Your task to perform on an android device: turn on data saver in the chrome app Image 0: 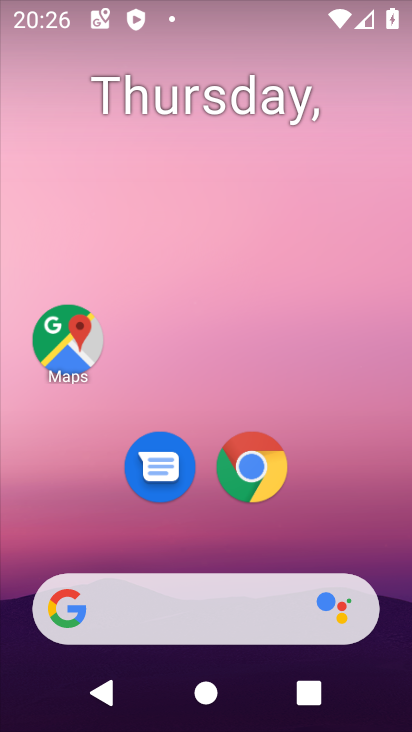
Step 0: drag from (331, 546) to (337, 274)
Your task to perform on an android device: turn on data saver in the chrome app Image 1: 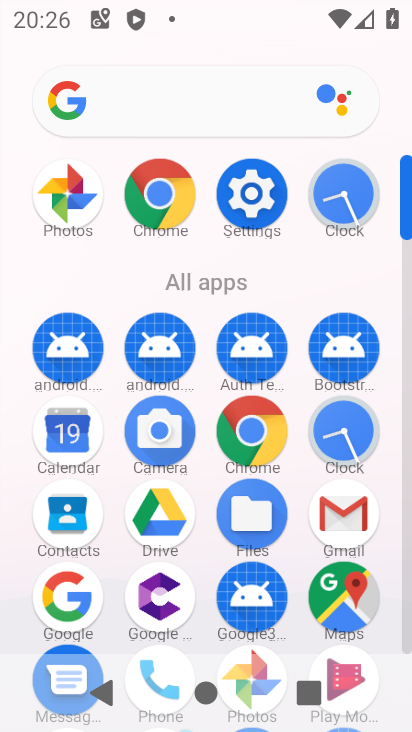
Step 1: click (255, 428)
Your task to perform on an android device: turn on data saver in the chrome app Image 2: 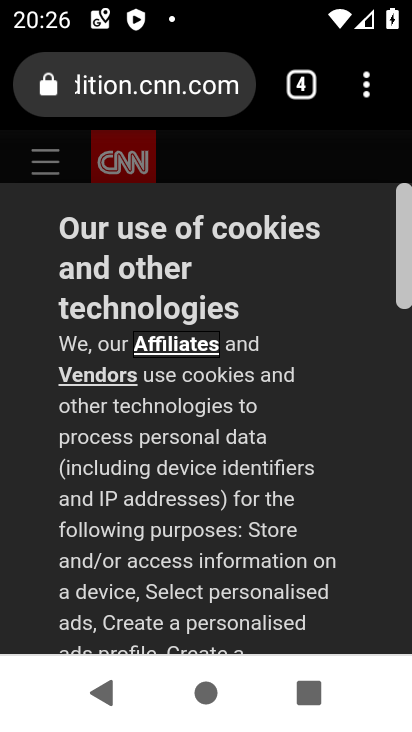
Step 2: click (367, 82)
Your task to perform on an android device: turn on data saver in the chrome app Image 3: 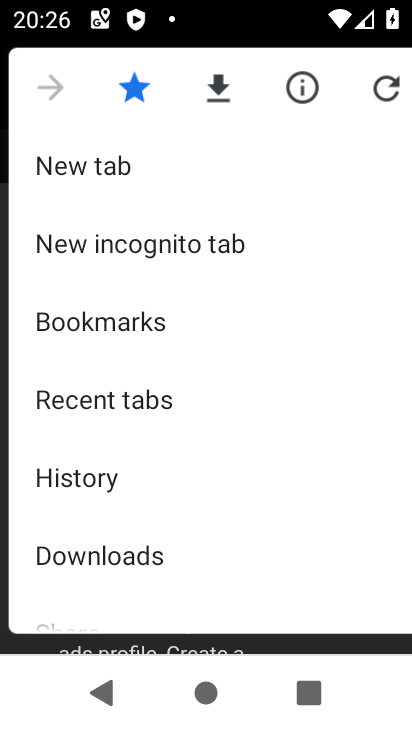
Step 3: drag from (181, 557) to (242, 276)
Your task to perform on an android device: turn on data saver in the chrome app Image 4: 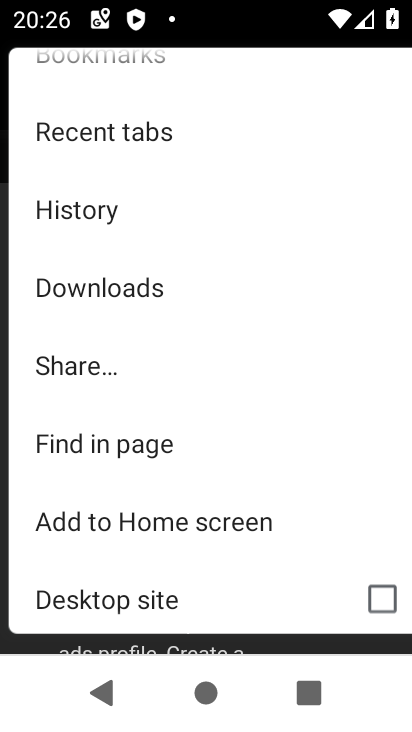
Step 4: drag from (262, 539) to (278, 243)
Your task to perform on an android device: turn on data saver in the chrome app Image 5: 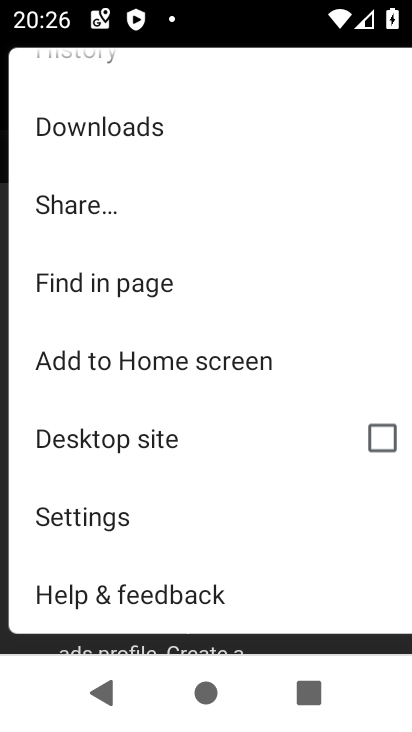
Step 5: click (141, 519)
Your task to perform on an android device: turn on data saver in the chrome app Image 6: 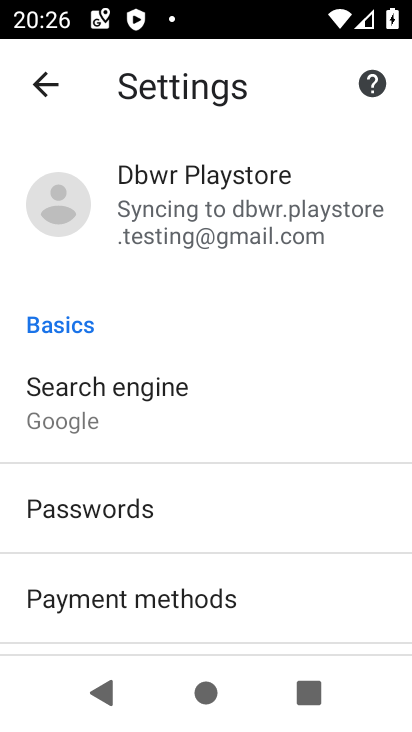
Step 6: drag from (129, 566) to (213, 159)
Your task to perform on an android device: turn on data saver in the chrome app Image 7: 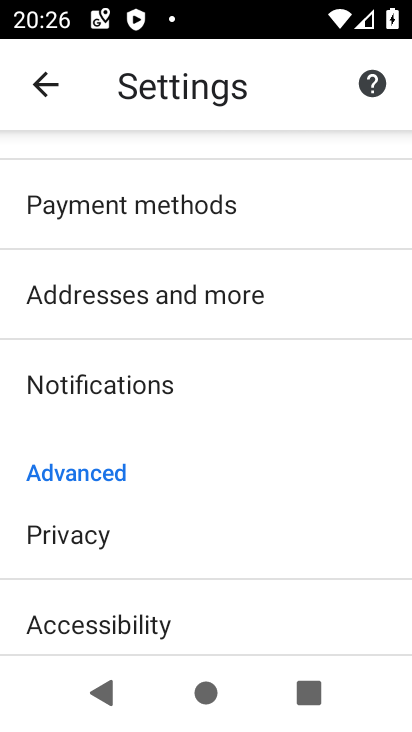
Step 7: drag from (236, 548) to (292, 182)
Your task to perform on an android device: turn on data saver in the chrome app Image 8: 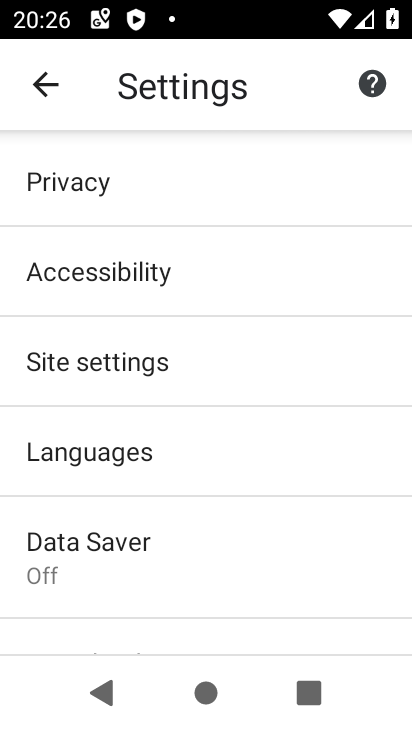
Step 8: click (154, 571)
Your task to perform on an android device: turn on data saver in the chrome app Image 9: 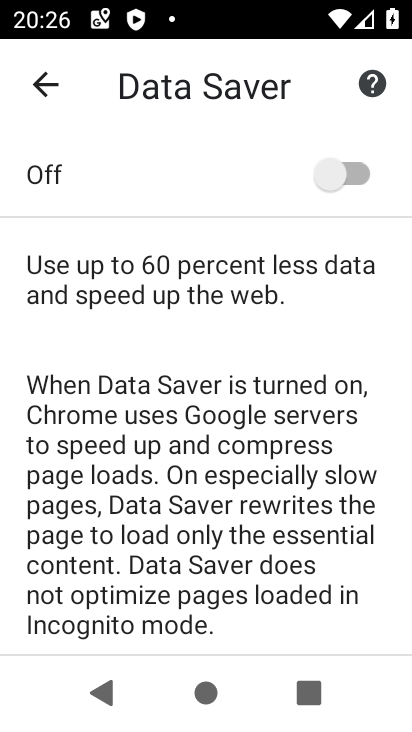
Step 9: click (354, 168)
Your task to perform on an android device: turn on data saver in the chrome app Image 10: 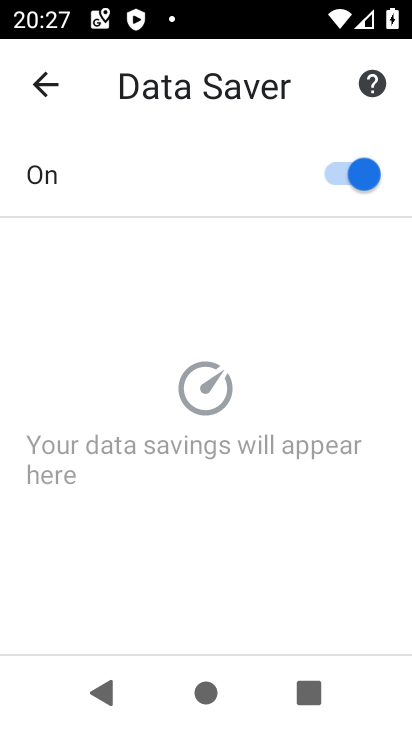
Step 10: task complete